Your task to perform on an android device: Show me popular videos on Youtube Image 0: 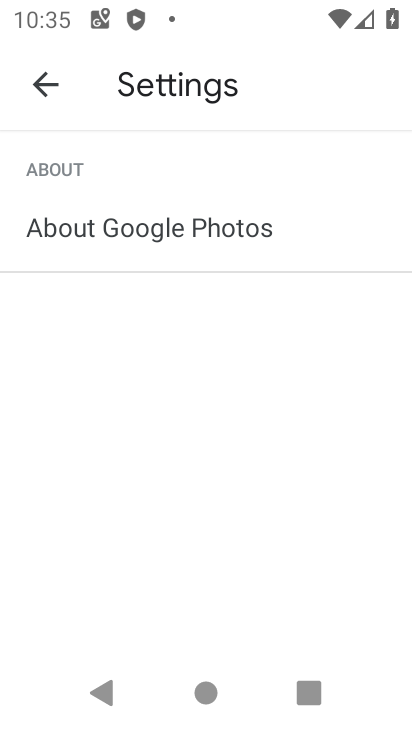
Step 0: press back button
Your task to perform on an android device: Show me popular videos on Youtube Image 1: 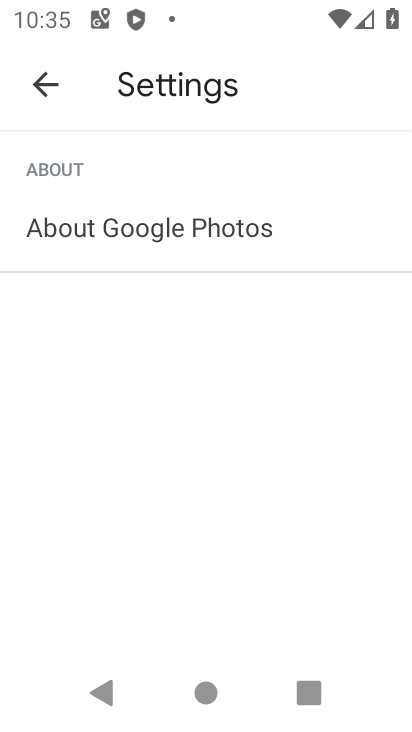
Step 1: press back button
Your task to perform on an android device: Show me popular videos on Youtube Image 2: 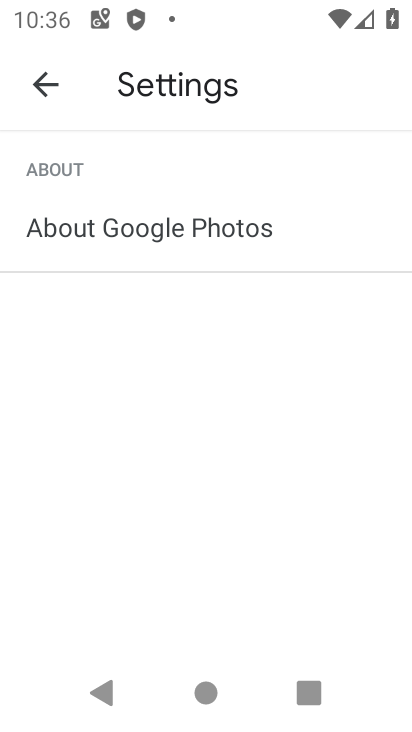
Step 2: press back button
Your task to perform on an android device: Show me popular videos on Youtube Image 3: 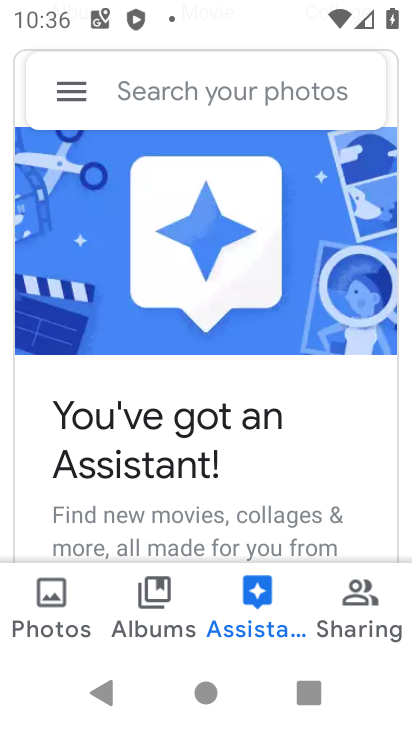
Step 3: press back button
Your task to perform on an android device: Show me popular videos on Youtube Image 4: 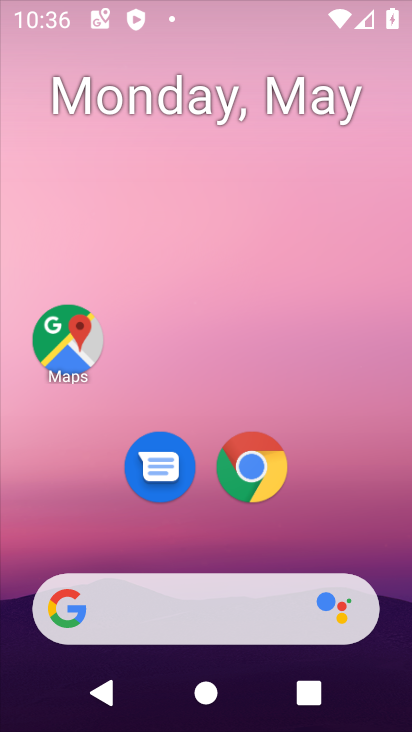
Step 4: press back button
Your task to perform on an android device: Show me popular videos on Youtube Image 5: 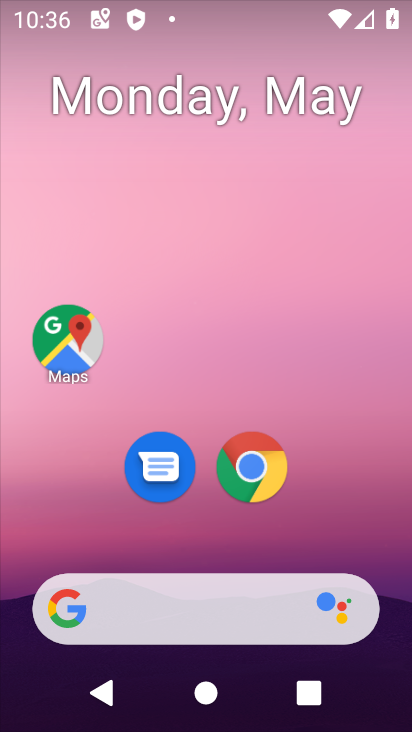
Step 5: click (370, 51)
Your task to perform on an android device: Show me popular videos on Youtube Image 6: 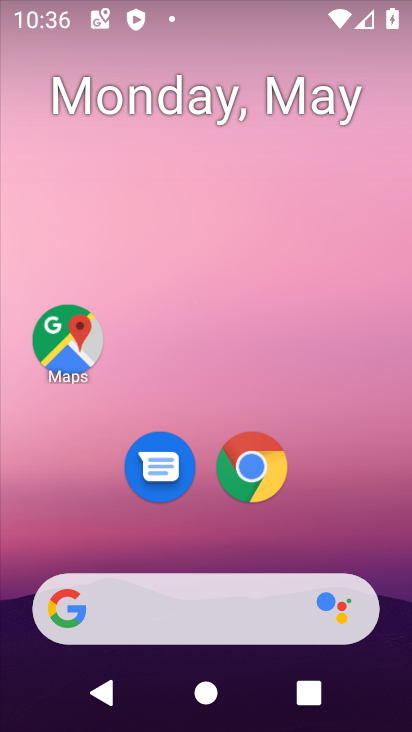
Step 6: click (381, 75)
Your task to perform on an android device: Show me popular videos on Youtube Image 7: 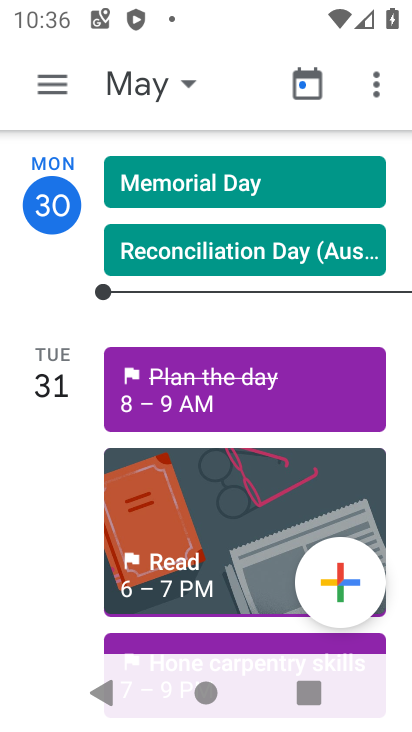
Step 7: drag from (249, 583) to (252, 217)
Your task to perform on an android device: Show me popular videos on Youtube Image 8: 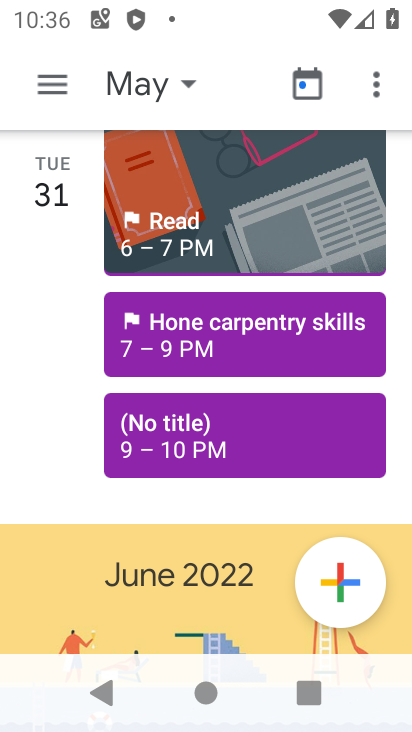
Step 8: drag from (226, 593) to (244, 260)
Your task to perform on an android device: Show me popular videos on Youtube Image 9: 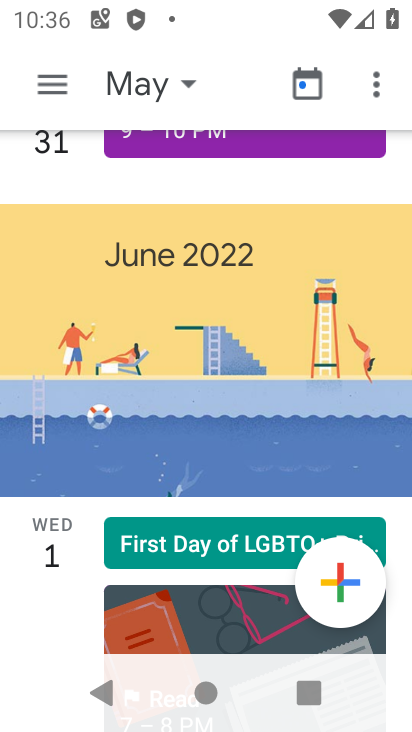
Step 9: press home button
Your task to perform on an android device: Show me popular videos on Youtube Image 10: 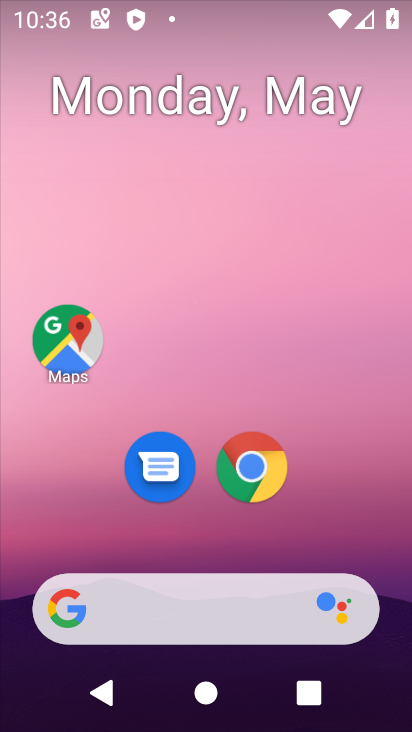
Step 10: drag from (382, 717) to (365, 142)
Your task to perform on an android device: Show me popular videos on Youtube Image 11: 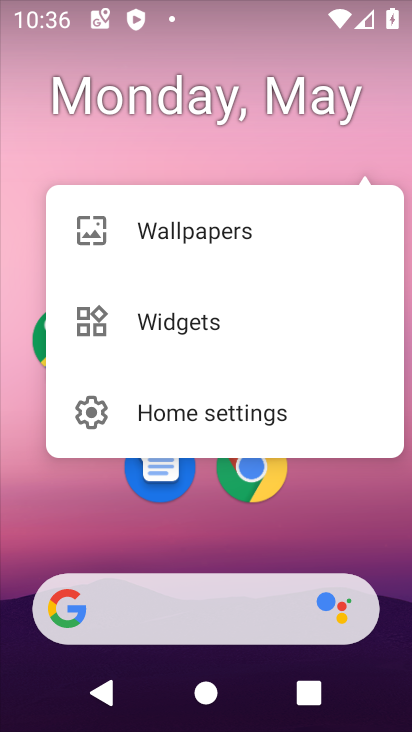
Step 11: press back button
Your task to perform on an android device: Show me popular videos on Youtube Image 12: 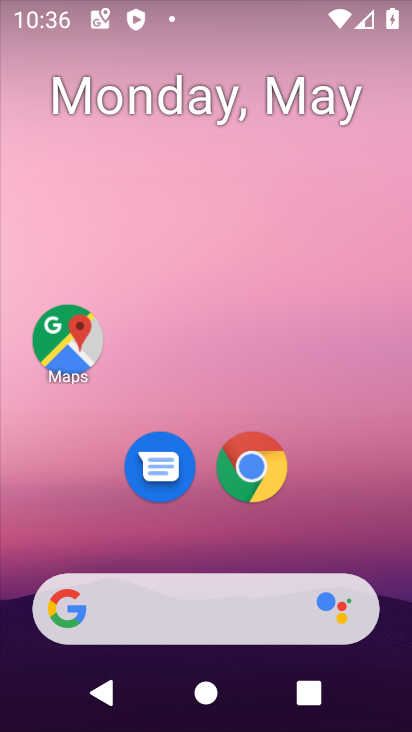
Step 12: drag from (396, 652) to (382, 75)
Your task to perform on an android device: Show me popular videos on Youtube Image 13: 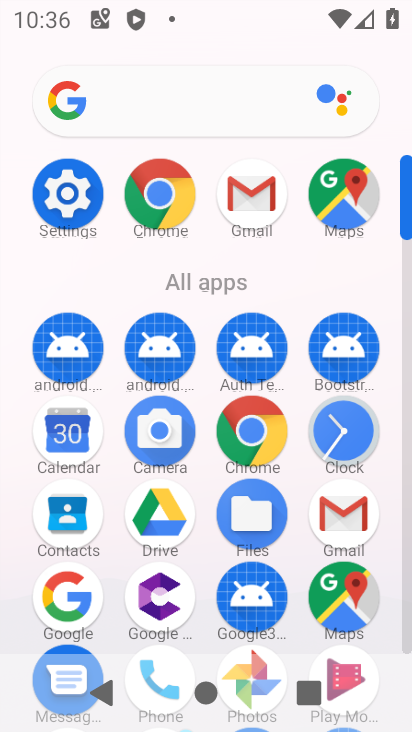
Step 13: drag from (289, 614) to (297, 243)
Your task to perform on an android device: Show me popular videos on Youtube Image 14: 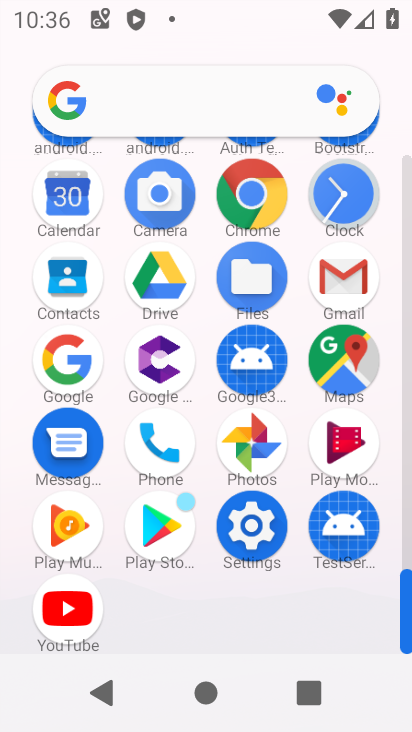
Step 14: click (82, 604)
Your task to perform on an android device: Show me popular videos on Youtube Image 15: 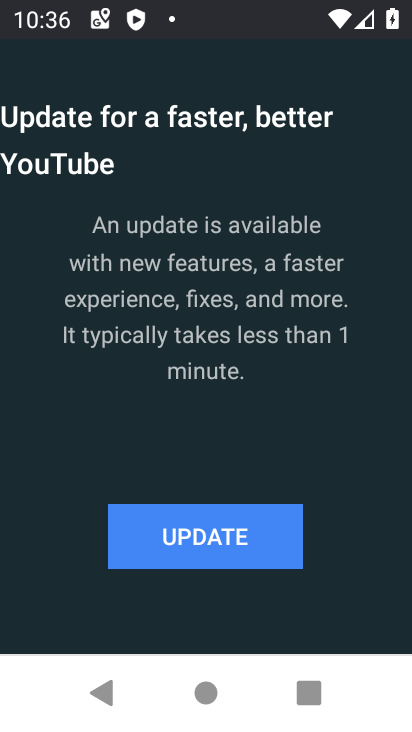
Step 15: click (171, 523)
Your task to perform on an android device: Show me popular videos on Youtube Image 16: 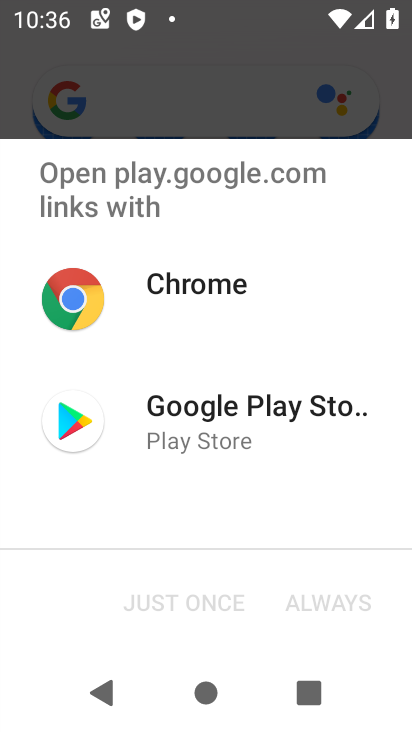
Step 16: click (179, 417)
Your task to perform on an android device: Show me popular videos on Youtube Image 17: 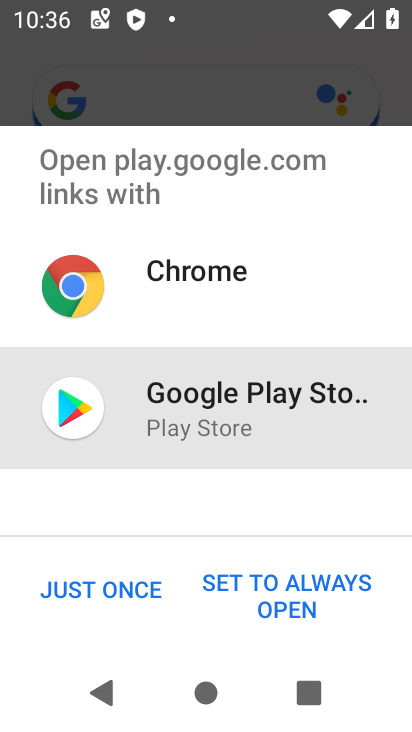
Step 17: click (167, 586)
Your task to perform on an android device: Show me popular videos on Youtube Image 18: 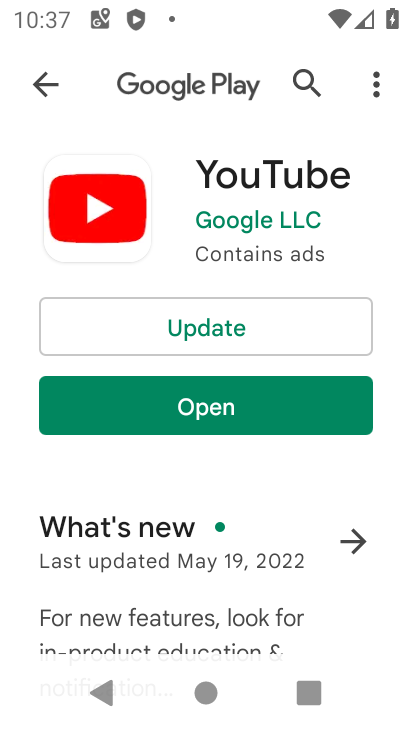
Step 18: click (255, 333)
Your task to perform on an android device: Show me popular videos on Youtube Image 19: 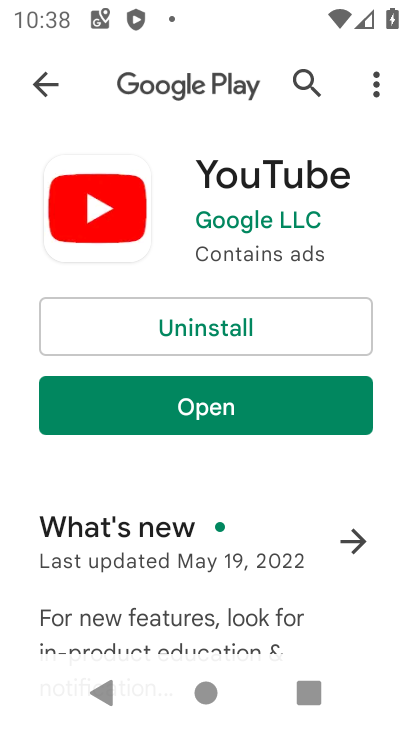
Step 19: click (243, 393)
Your task to perform on an android device: Show me popular videos on Youtube Image 20: 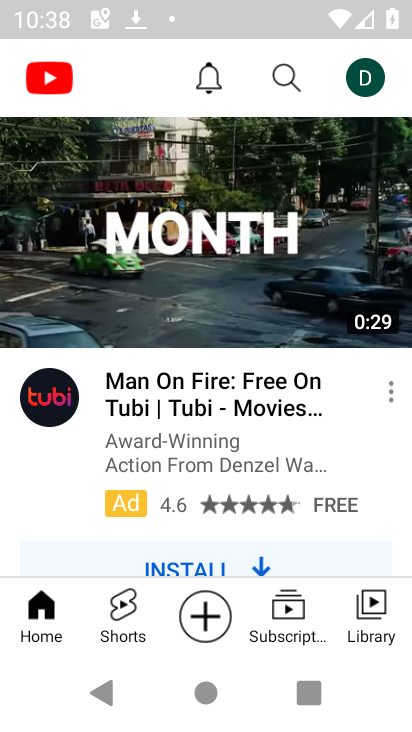
Step 20: drag from (225, 542) to (248, 247)
Your task to perform on an android device: Show me popular videos on Youtube Image 21: 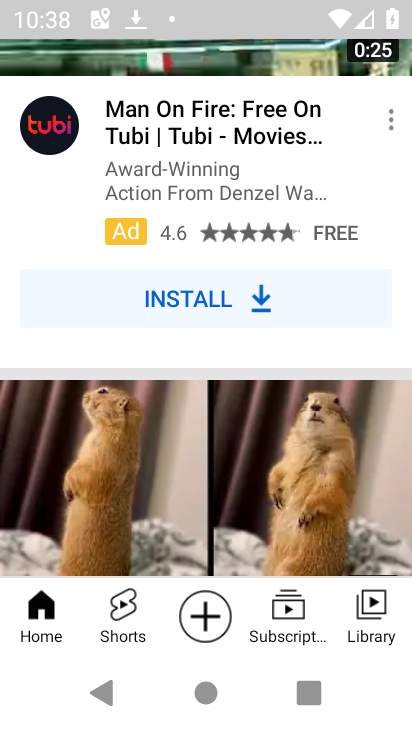
Step 21: drag from (229, 137) to (236, 471)
Your task to perform on an android device: Show me popular videos on Youtube Image 22: 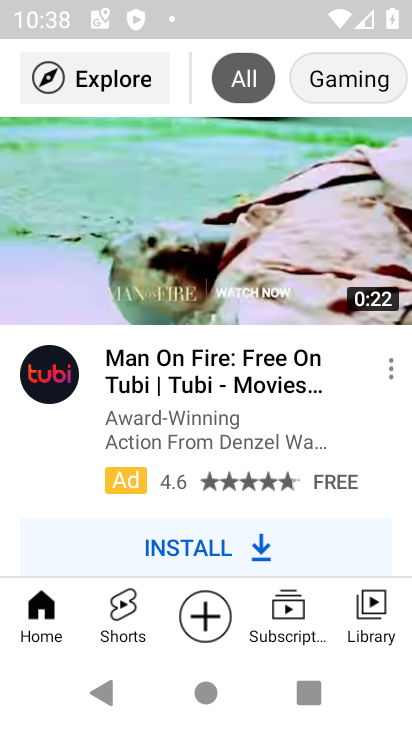
Step 22: drag from (170, 157) to (191, 502)
Your task to perform on an android device: Show me popular videos on Youtube Image 23: 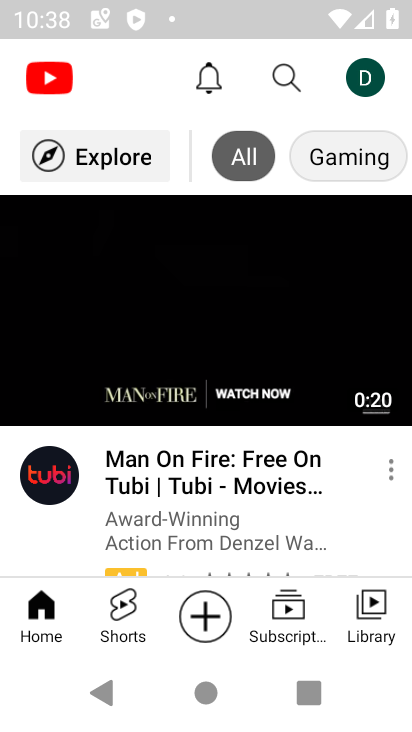
Step 23: click (285, 77)
Your task to perform on an android device: Show me popular videos on Youtube Image 24: 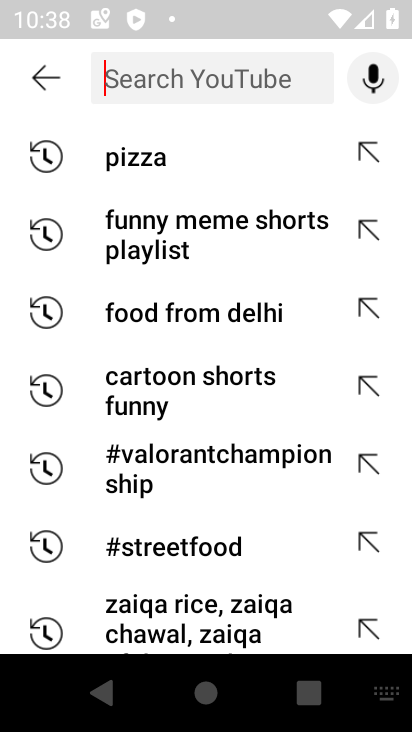
Step 24: type "popular videos"
Your task to perform on an android device: Show me popular videos on Youtube Image 25: 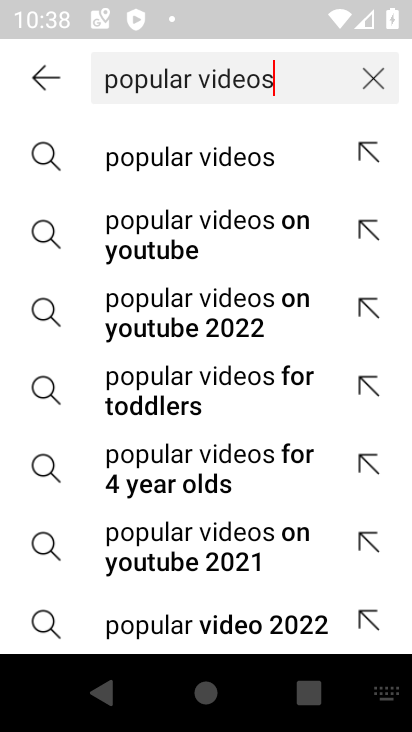
Step 25: click (186, 157)
Your task to perform on an android device: Show me popular videos on Youtube Image 26: 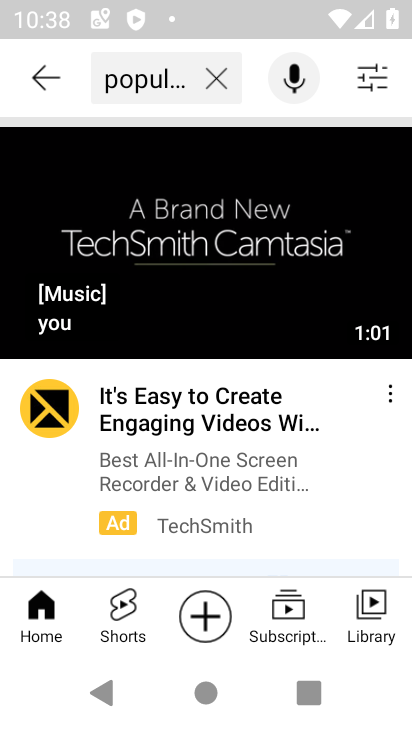
Step 26: click (248, 180)
Your task to perform on an android device: Show me popular videos on Youtube Image 27: 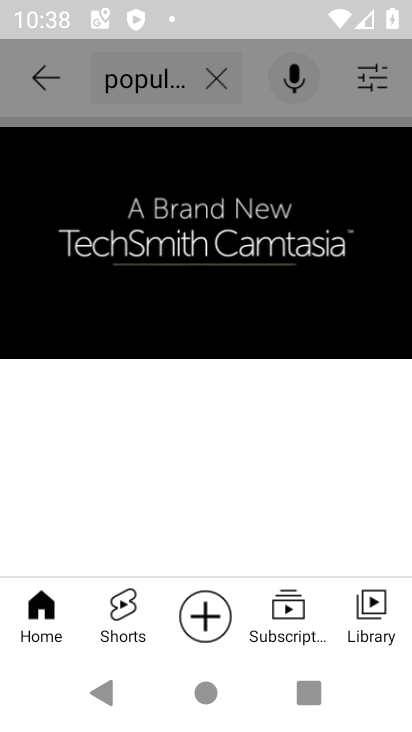
Step 27: task complete